Your task to perform on an android device: When is my next appointment? Image 0: 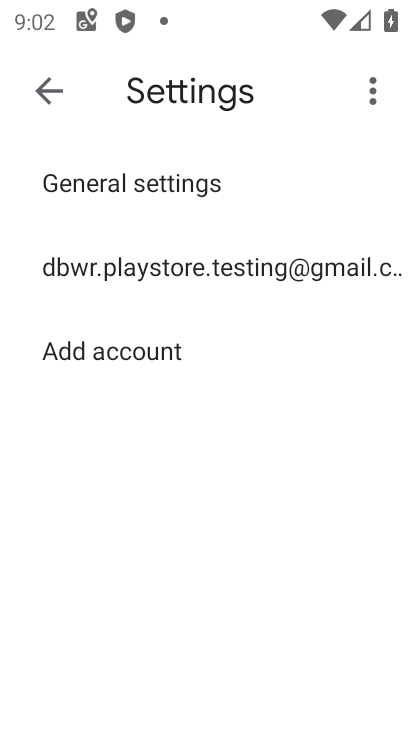
Step 0: press home button
Your task to perform on an android device: When is my next appointment? Image 1: 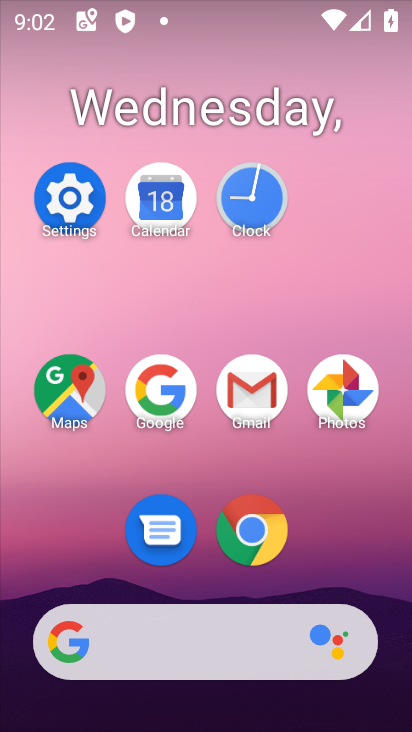
Step 1: click (159, 207)
Your task to perform on an android device: When is my next appointment? Image 2: 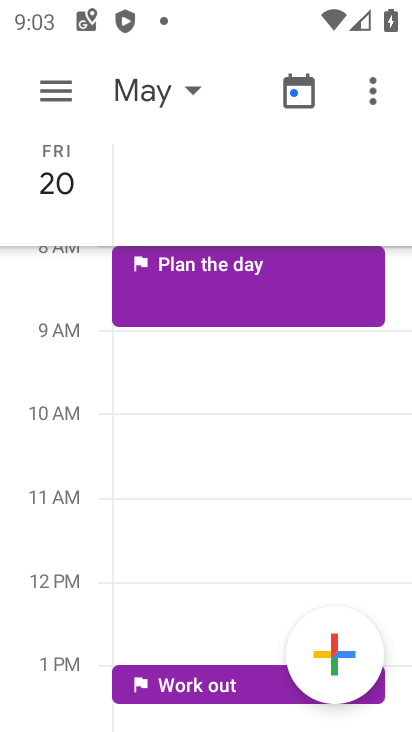
Step 2: task complete